Your task to perform on an android device: Search for a cheap bike on Walmart Image 0: 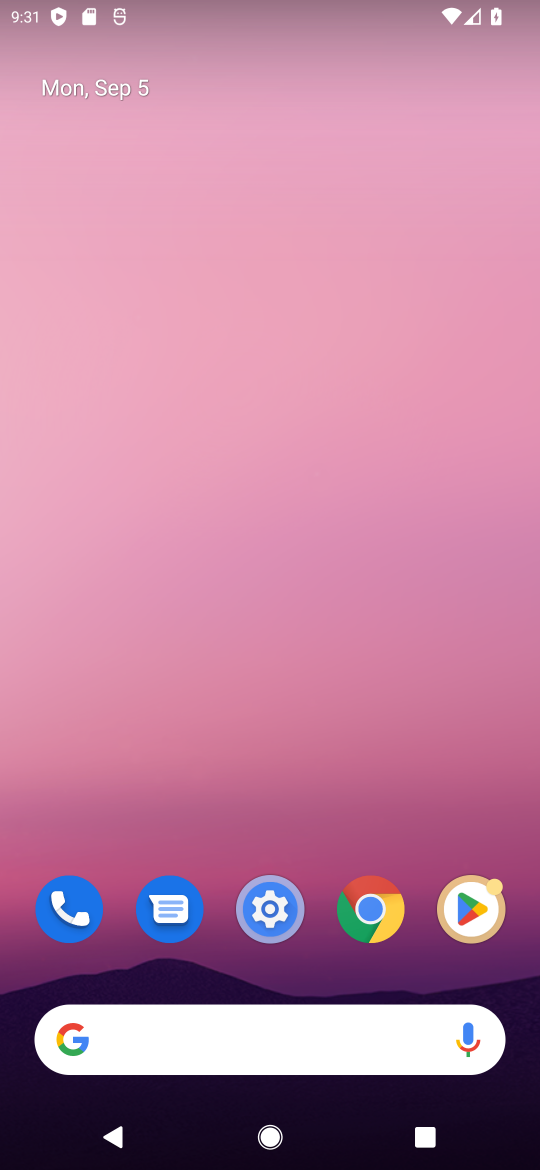
Step 0: click (362, 892)
Your task to perform on an android device: Search for a cheap bike on Walmart Image 1: 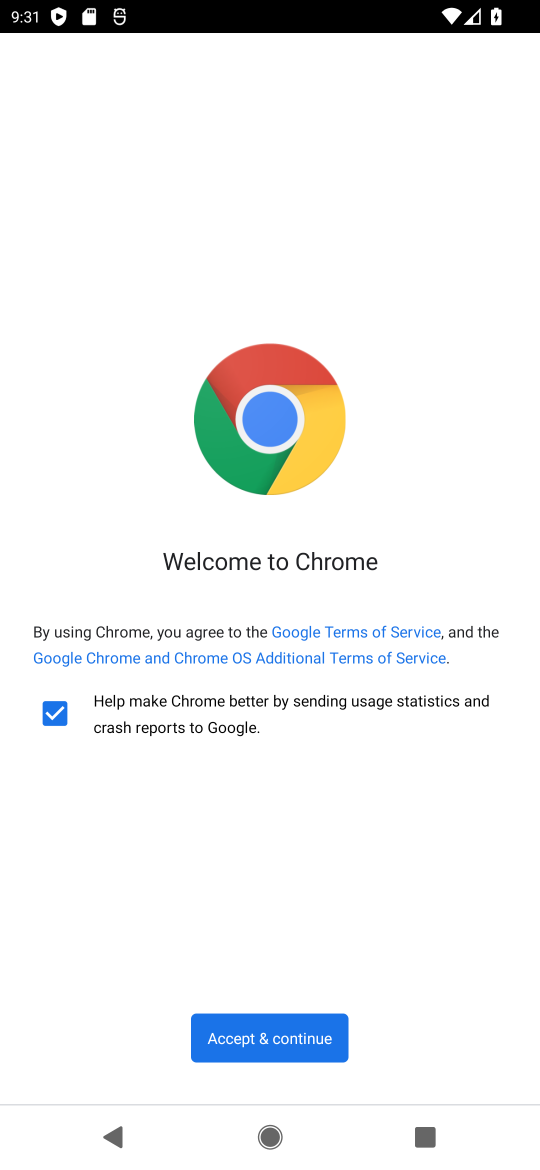
Step 1: click (279, 1048)
Your task to perform on an android device: Search for a cheap bike on Walmart Image 2: 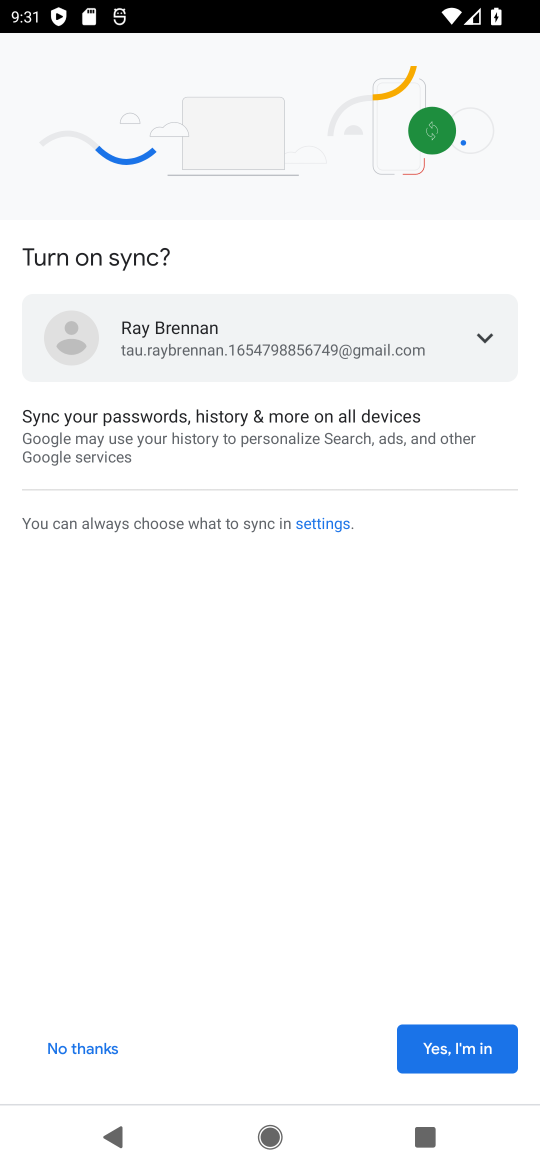
Step 2: click (476, 1056)
Your task to perform on an android device: Search for a cheap bike on Walmart Image 3: 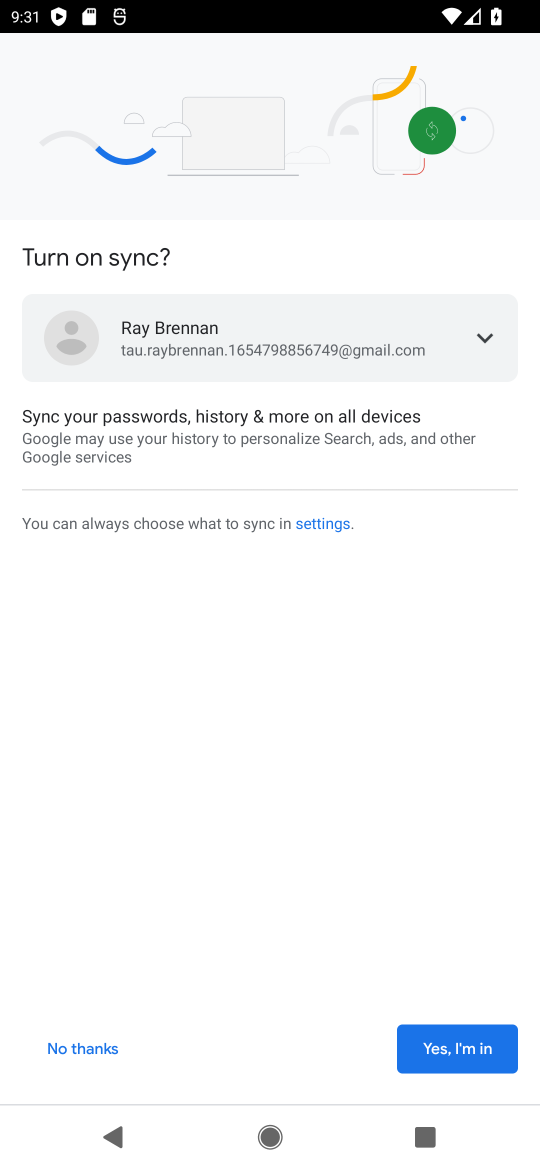
Step 3: task complete